Your task to perform on an android device: set an alarm Image 0: 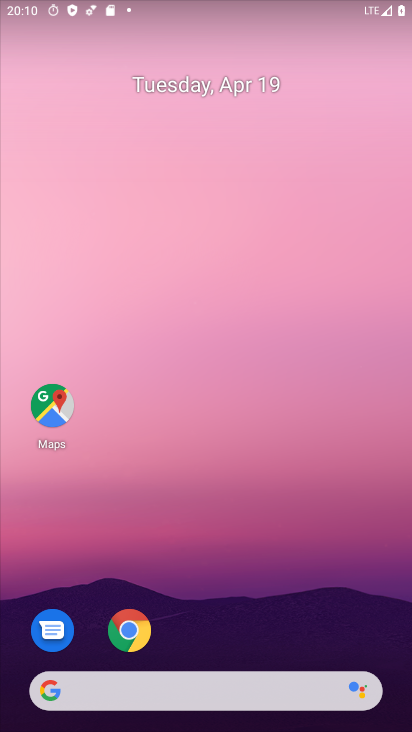
Step 0: drag from (193, 627) to (372, 9)
Your task to perform on an android device: set an alarm Image 1: 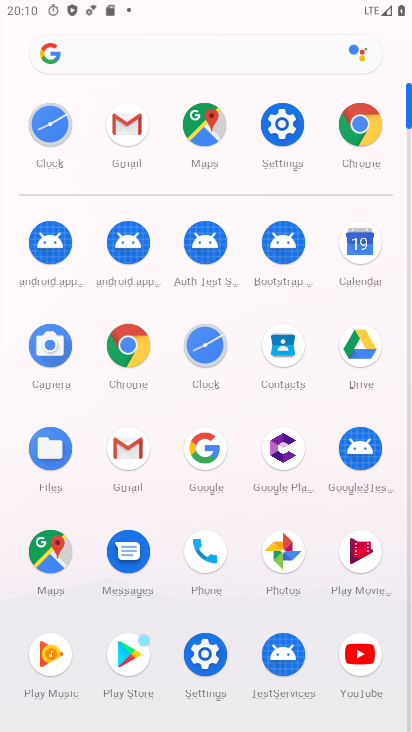
Step 1: click (48, 112)
Your task to perform on an android device: set an alarm Image 2: 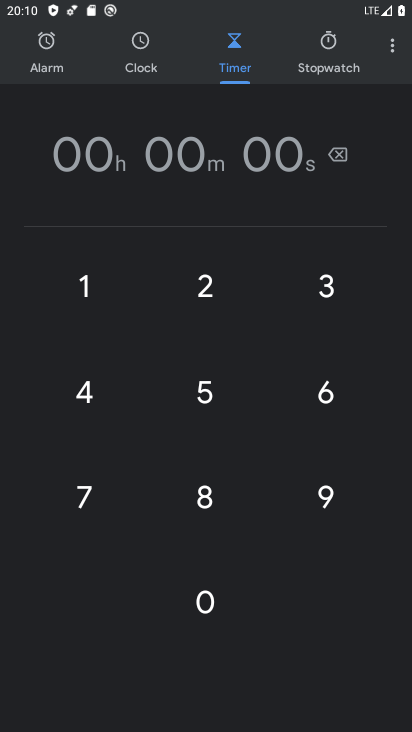
Step 2: click (49, 54)
Your task to perform on an android device: set an alarm Image 3: 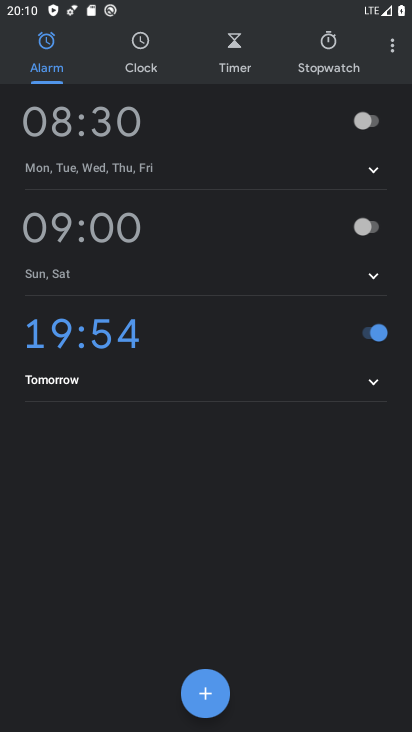
Step 3: click (209, 693)
Your task to perform on an android device: set an alarm Image 4: 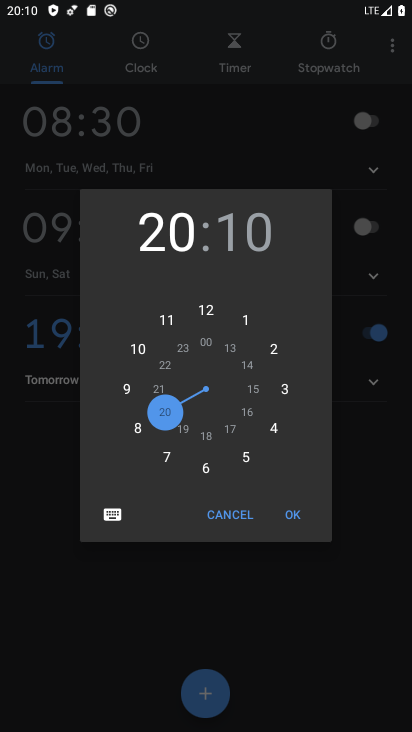
Step 4: click (294, 511)
Your task to perform on an android device: set an alarm Image 5: 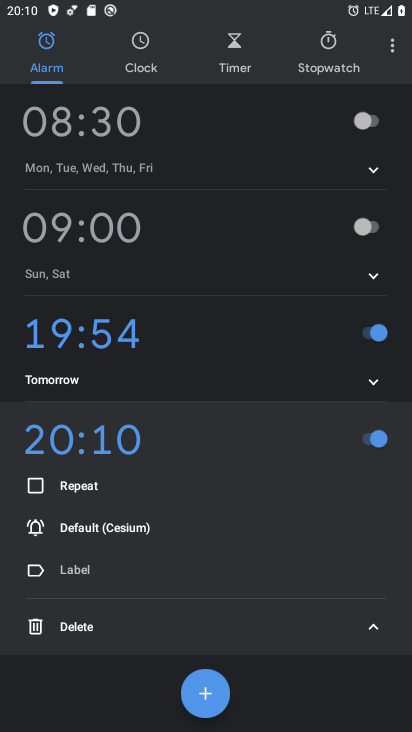
Step 5: task complete